Your task to perform on an android device: turn pop-ups off in chrome Image 0: 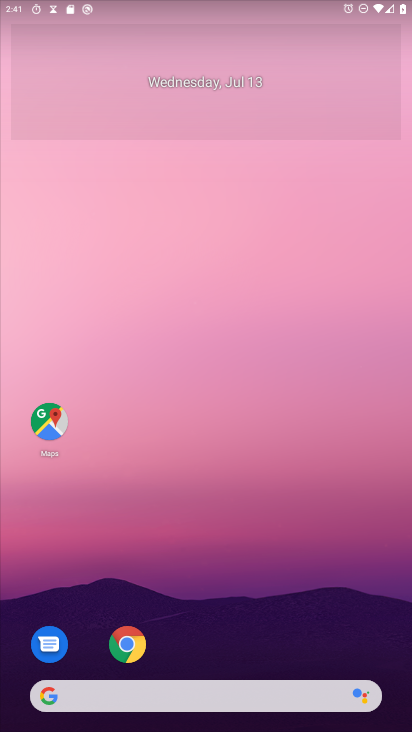
Step 0: press home button
Your task to perform on an android device: turn pop-ups off in chrome Image 1: 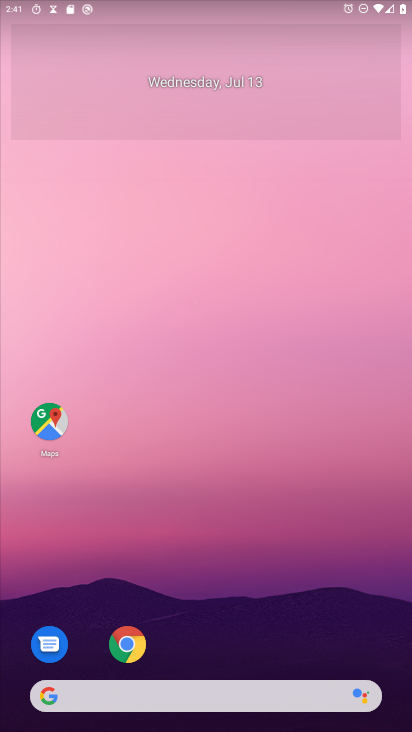
Step 1: press home button
Your task to perform on an android device: turn pop-ups off in chrome Image 2: 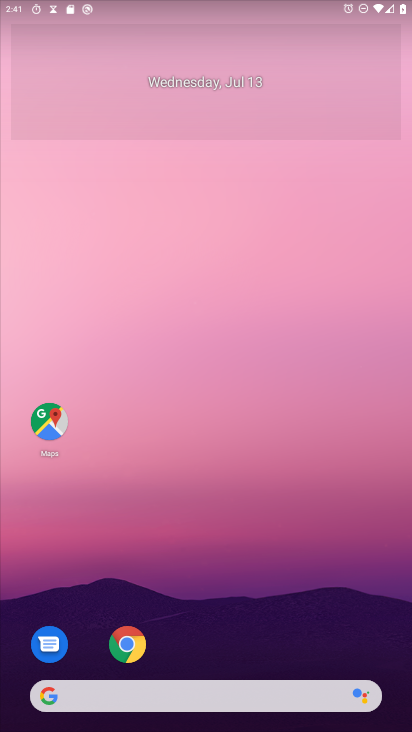
Step 2: click (123, 637)
Your task to perform on an android device: turn pop-ups off in chrome Image 3: 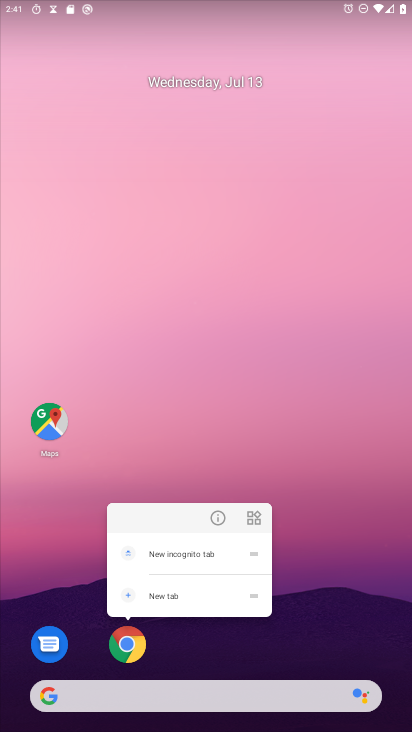
Step 3: click (127, 641)
Your task to perform on an android device: turn pop-ups off in chrome Image 4: 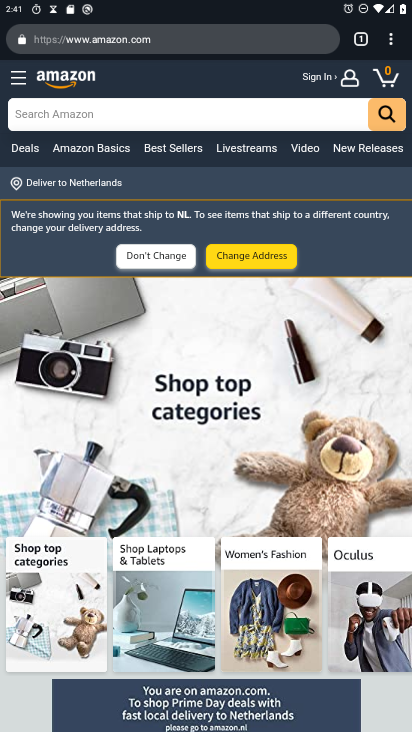
Step 4: drag from (395, 38) to (260, 462)
Your task to perform on an android device: turn pop-ups off in chrome Image 5: 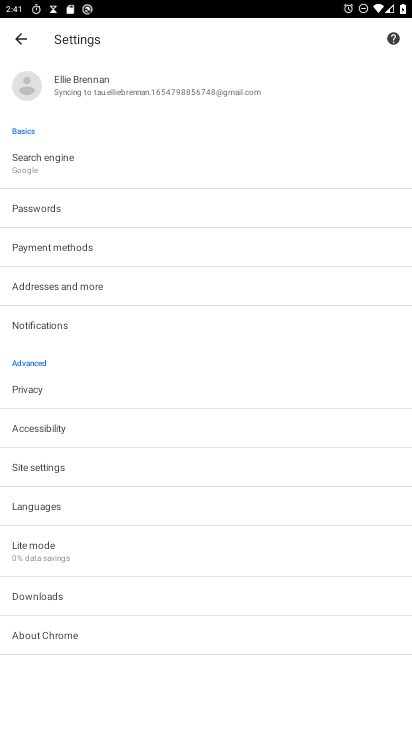
Step 5: click (48, 464)
Your task to perform on an android device: turn pop-ups off in chrome Image 6: 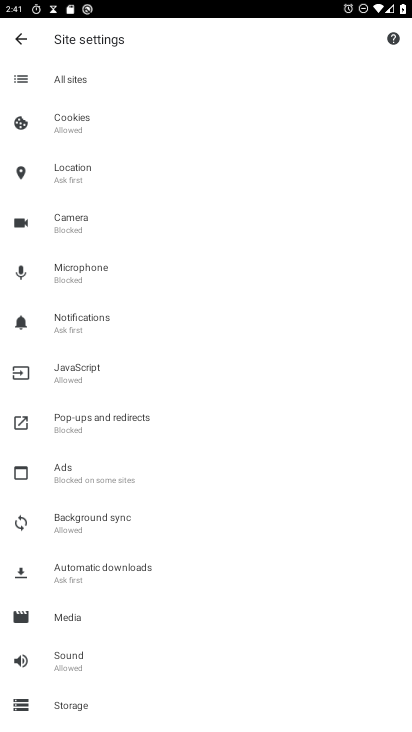
Step 6: click (105, 420)
Your task to perform on an android device: turn pop-ups off in chrome Image 7: 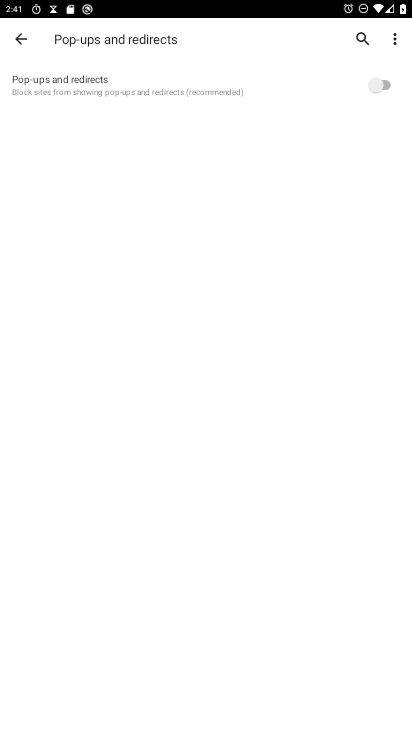
Step 7: task complete